Your task to perform on an android device: allow notifications from all sites in the chrome app Image 0: 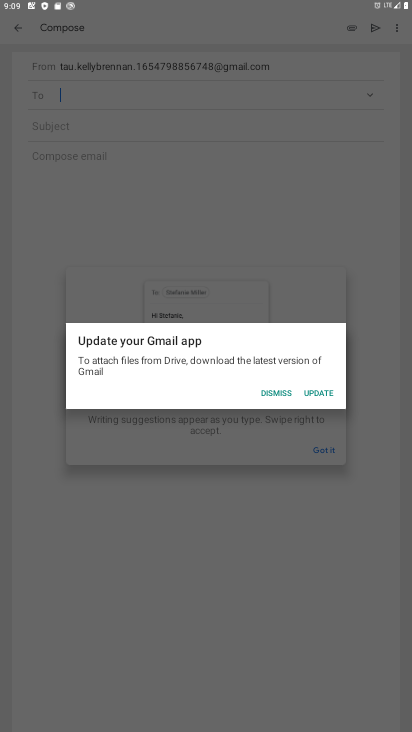
Step 0: press home button
Your task to perform on an android device: allow notifications from all sites in the chrome app Image 1: 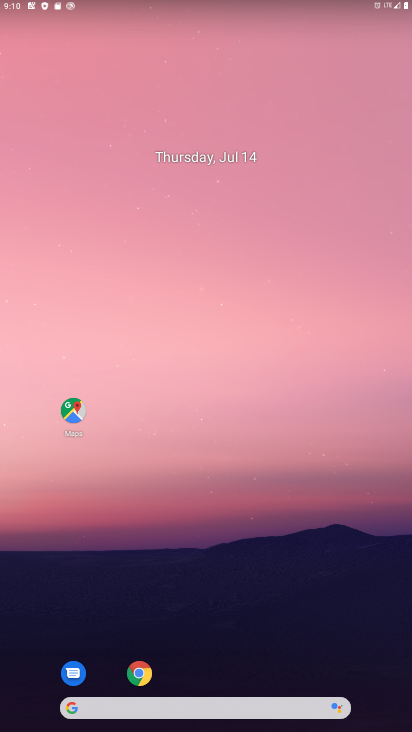
Step 1: click (140, 673)
Your task to perform on an android device: allow notifications from all sites in the chrome app Image 2: 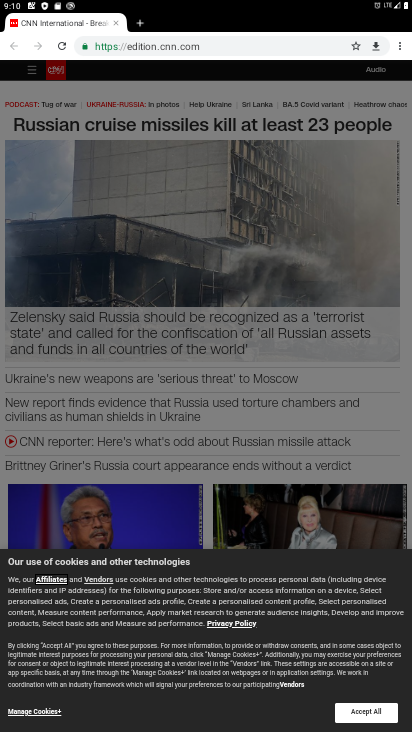
Step 2: click (400, 46)
Your task to perform on an android device: allow notifications from all sites in the chrome app Image 3: 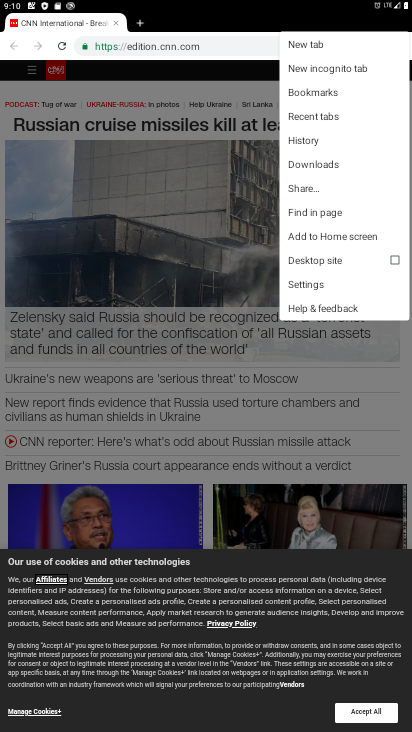
Step 3: click (308, 284)
Your task to perform on an android device: allow notifications from all sites in the chrome app Image 4: 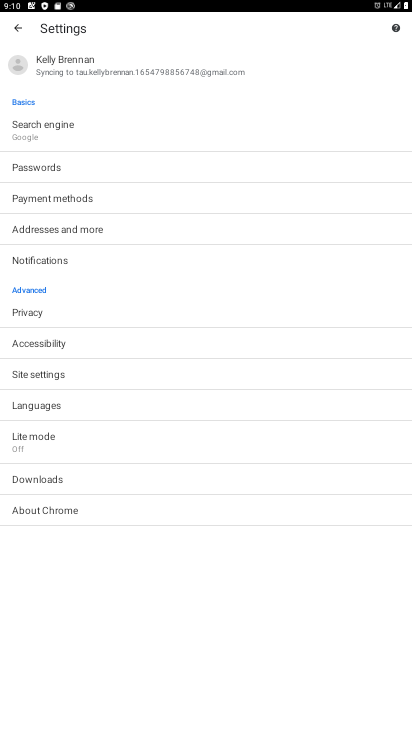
Step 4: click (37, 376)
Your task to perform on an android device: allow notifications from all sites in the chrome app Image 5: 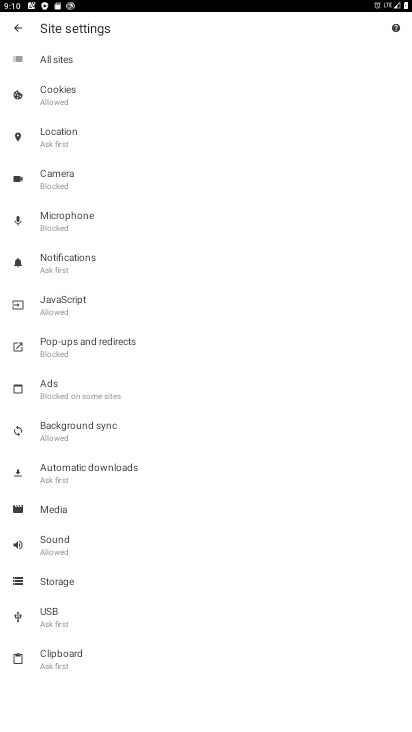
Step 5: click (72, 259)
Your task to perform on an android device: allow notifications from all sites in the chrome app Image 6: 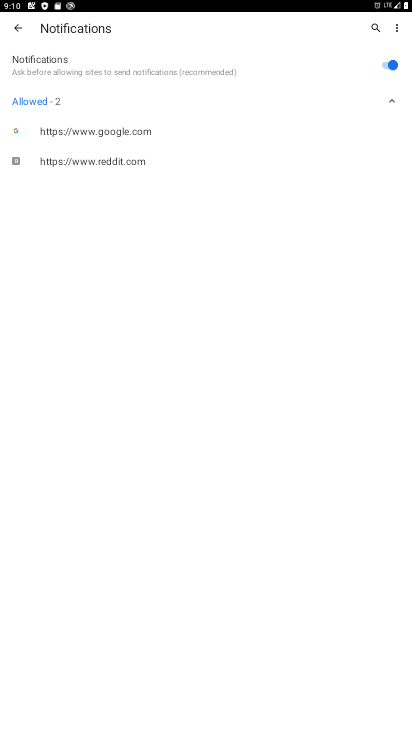
Step 6: task complete